Your task to perform on an android device: Search for nike dri-fit shirts on Nike Image 0: 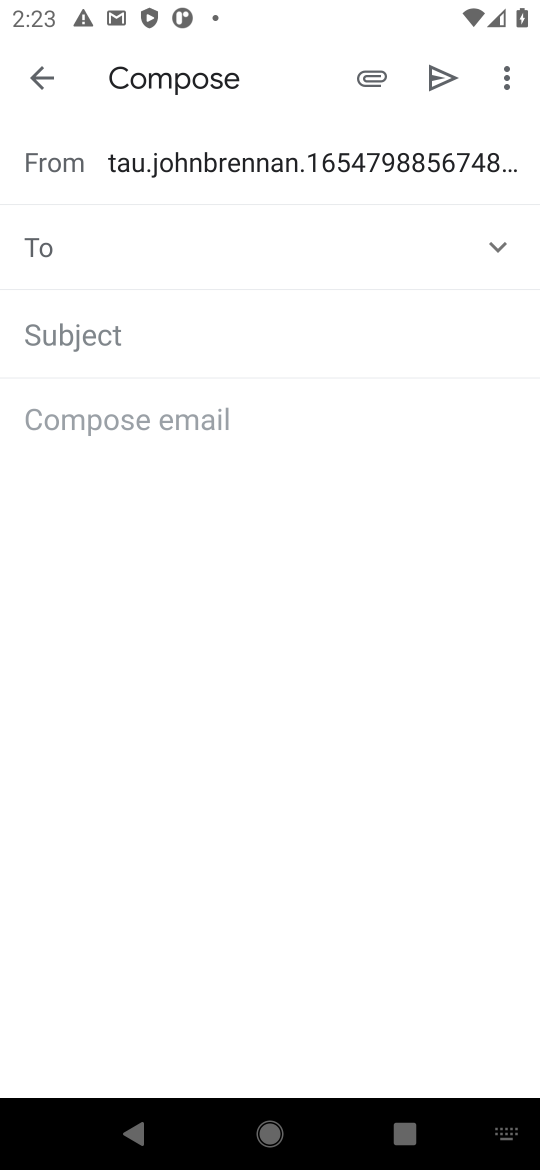
Step 0: press home button
Your task to perform on an android device: Search for nike dri-fit shirts on Nike Image 1: 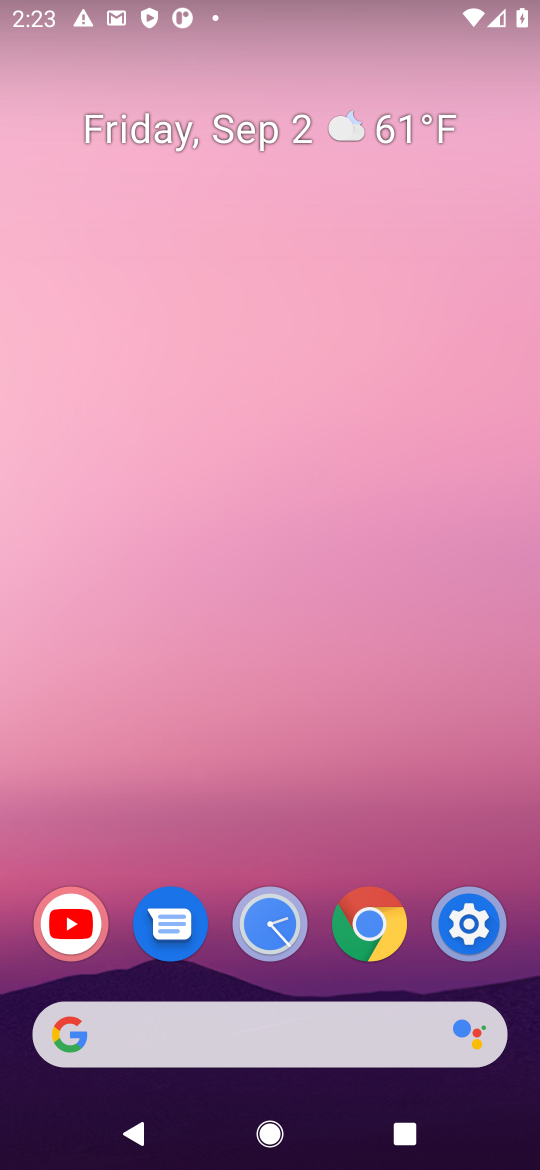
Step 1: click (348, 1041)
Your task to perform on an android device: Search for nike dri-fit shirts on Nike Image 2: 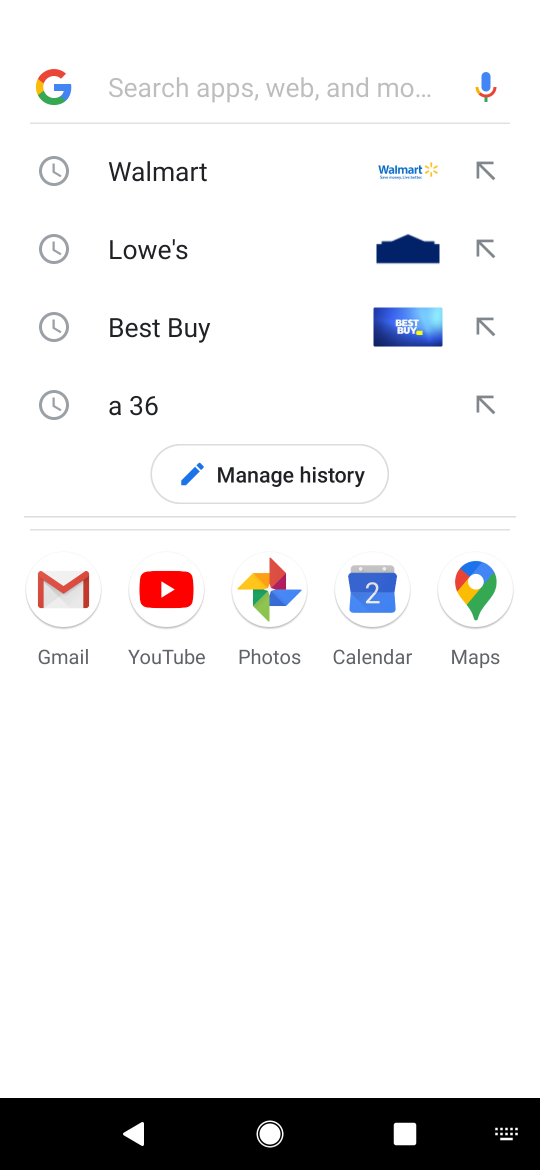
Step 2: press enter
Your task to perform on an android device: Search for nike dri-fit shirts on Nike Image 3: 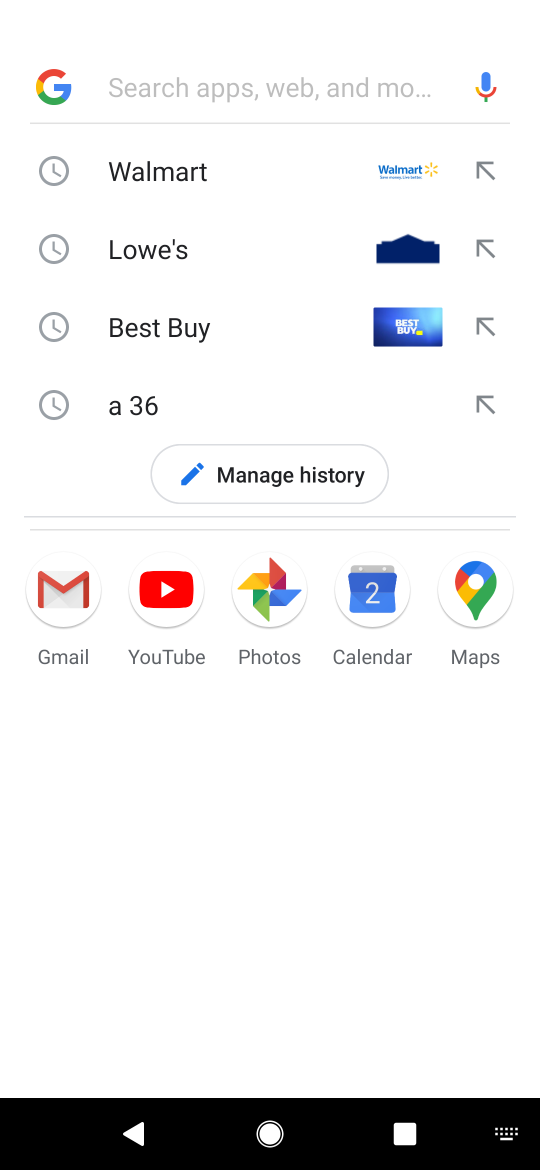
Step 3: type "nike"
Your task to perform on an android device: Search for nike dri-fit shirts on Nike Image 4: 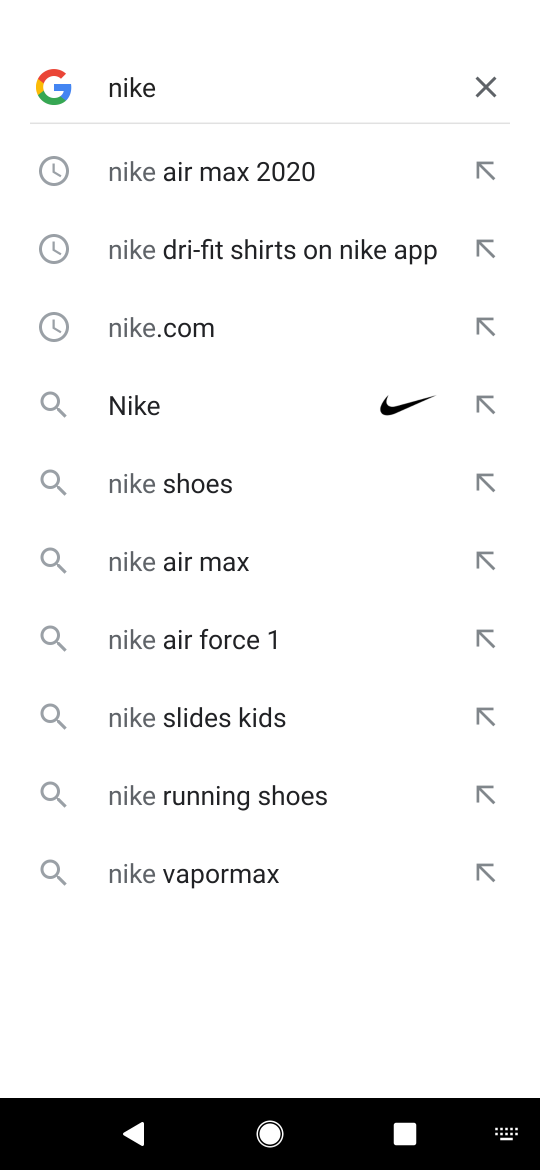
Step 4: click (152, 401)
Your task to perform on an android device: Search for nike dri-fit shirts on Nike Image 5: 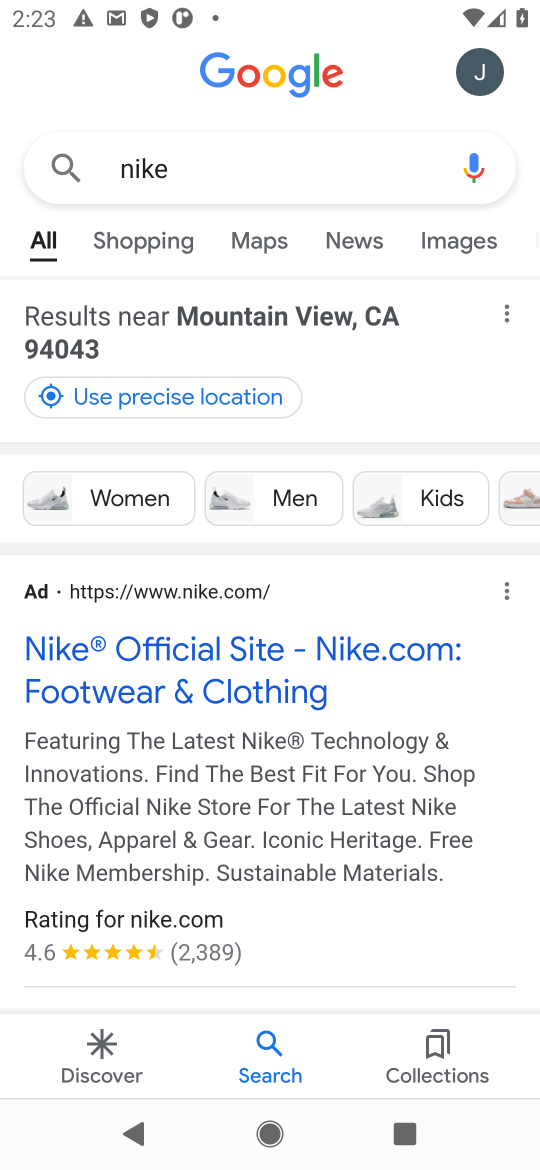
Step 5: click (272, 660)
Your task to perform on an android device: Search for nike dri-fit shirts on Nike Image 6: 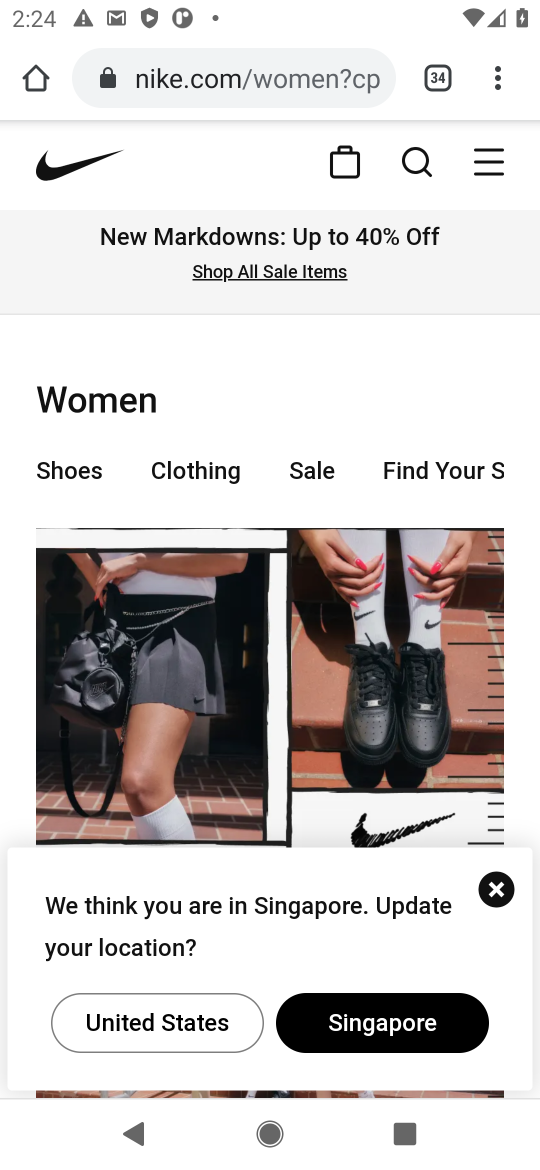
Step 6: click (417, 160)
Your task to perform on an android device: Search for nike dri-fit shirts on Nike Image 7: 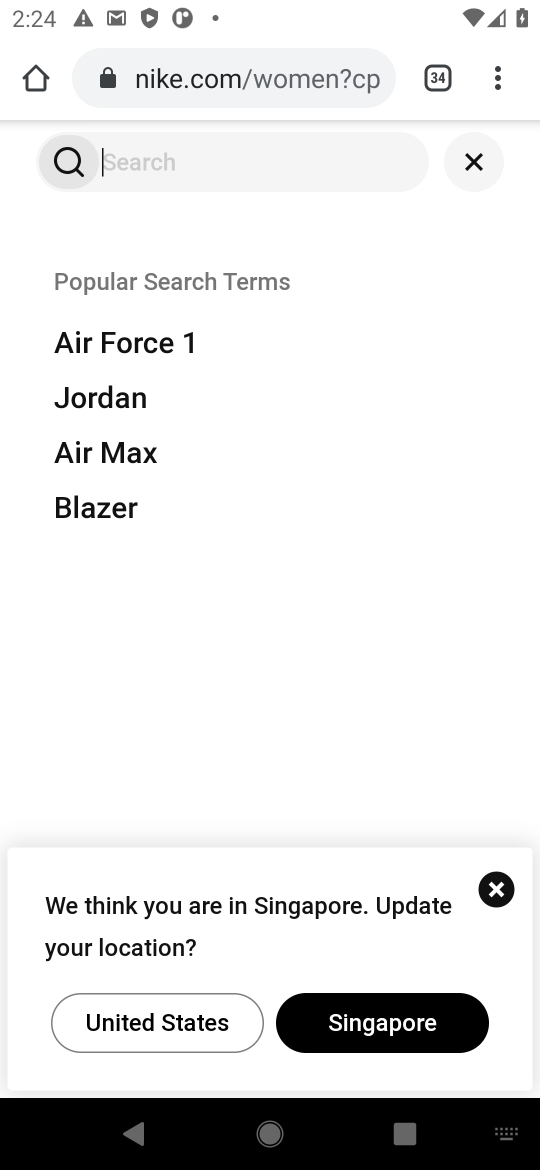
Step 7: type "nike dri fit shirts"
Your task to perform on an android device: Search for nike dri-fit shirts on Nike Image 8: 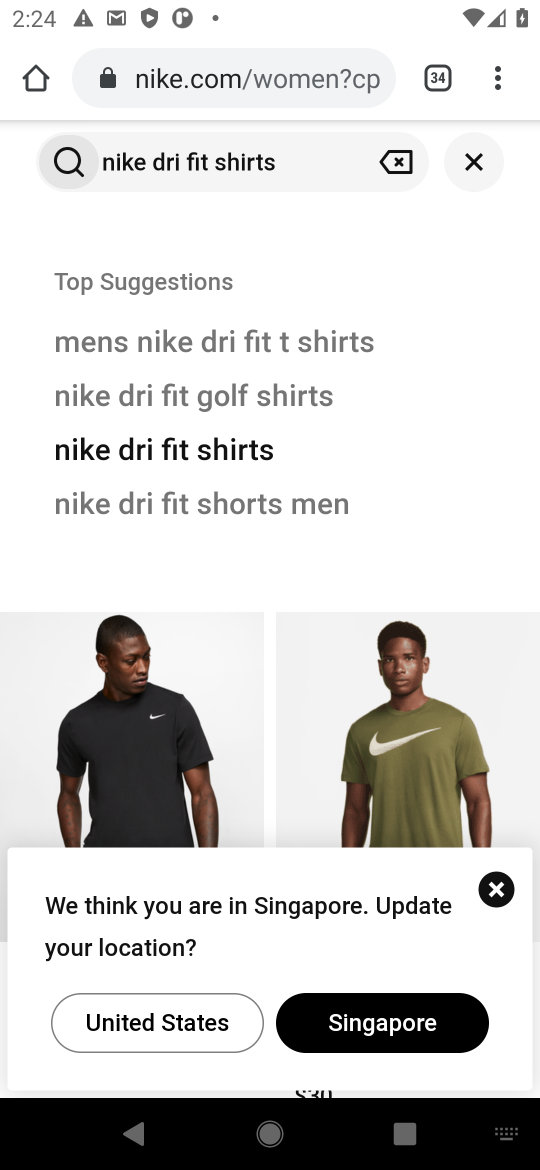
Step 8: click (493, 879)
Your task to perform on an android device: Search for nike dri-fit shirts on Nike Image 9: 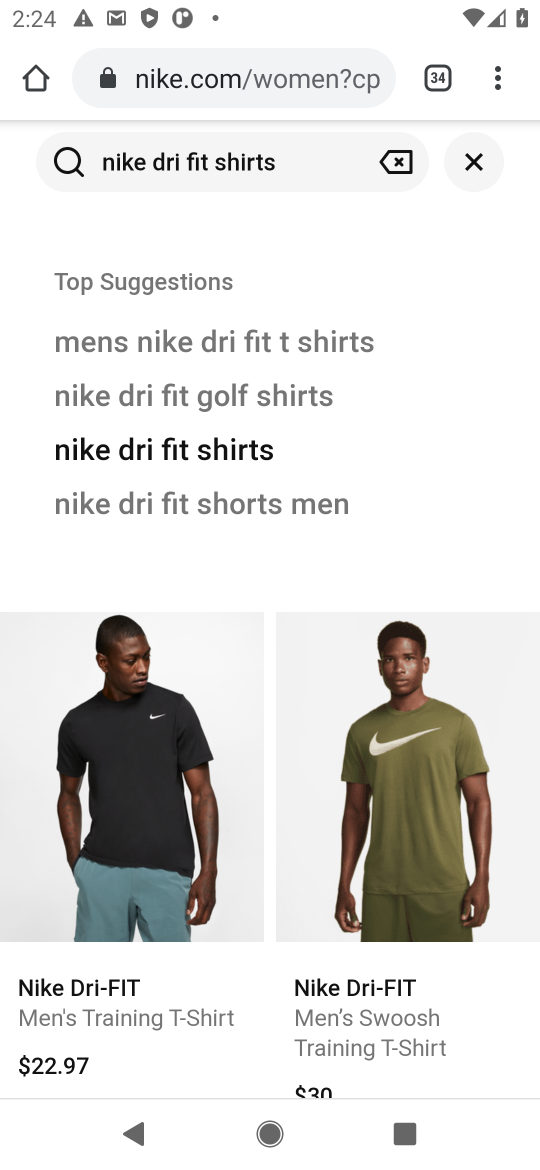
Step 9: task complete